Your task to perform on an android device: Is it going to rain this weekend? Image 0: 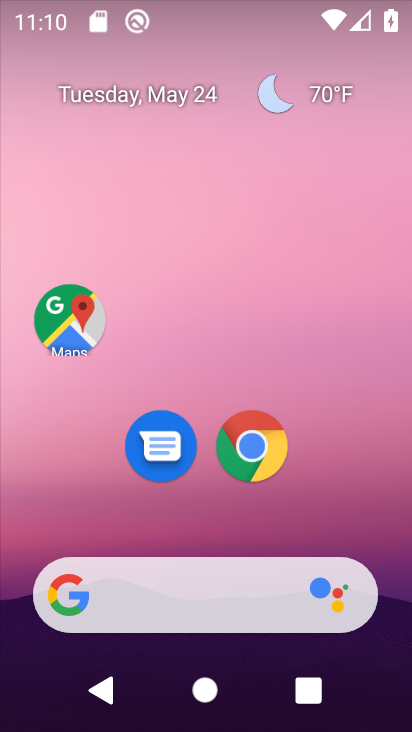
Step 0: drag from (214, 526) to (220, 169)
Your task to perform on an android device: Is it going to rain this weekend? Image 1: 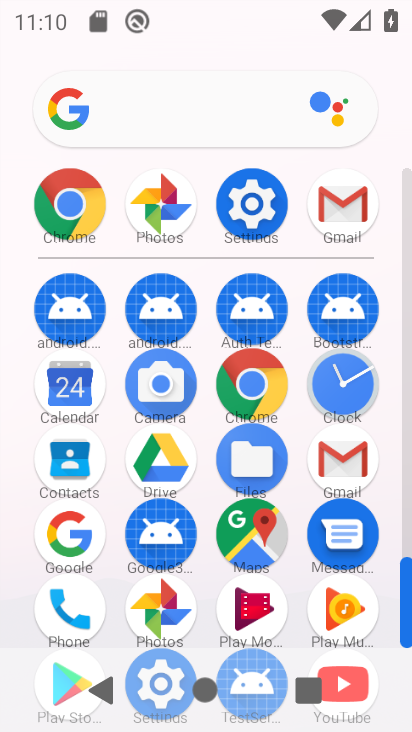
Step 1: drag from (199, 255) to (218, 143)
Your task to perform on an android device: Is it going to rain this weekend? Image 2: 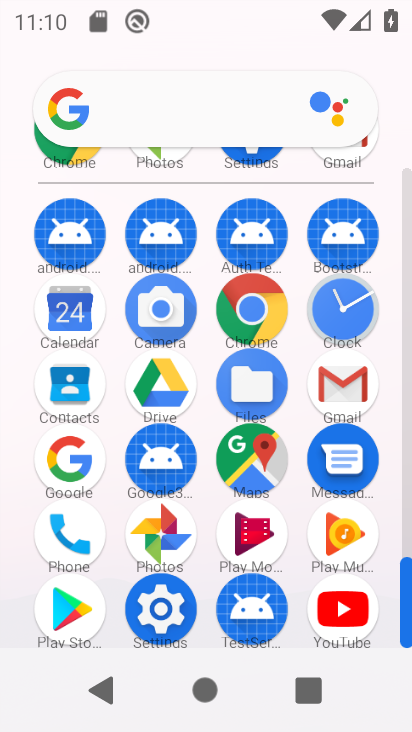
Step 2: click (82, 471)
Your task to perform on an android device: Is it going to rain this weekend? Image 3: 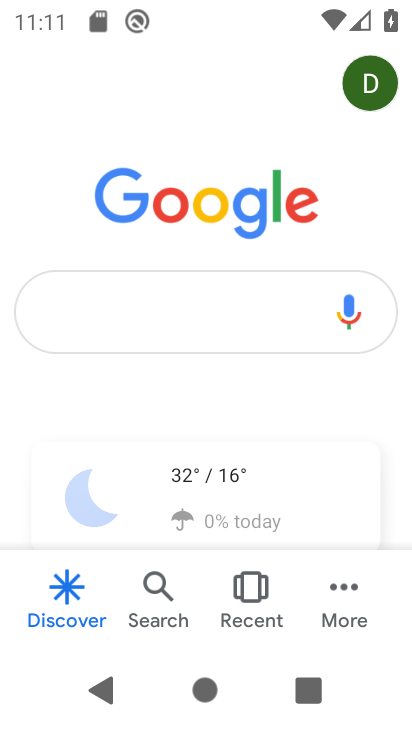
Step 3: click (182, 492)
Your task to perform on an android device: Is it going to rain this weekend? Image 4: 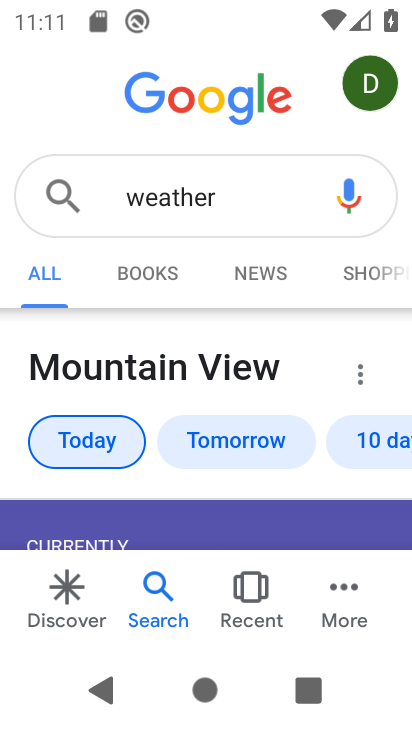
Step 4: click (391, 449)
Your task to perform on an android device: Is it going to rain this weekend? Image 5: 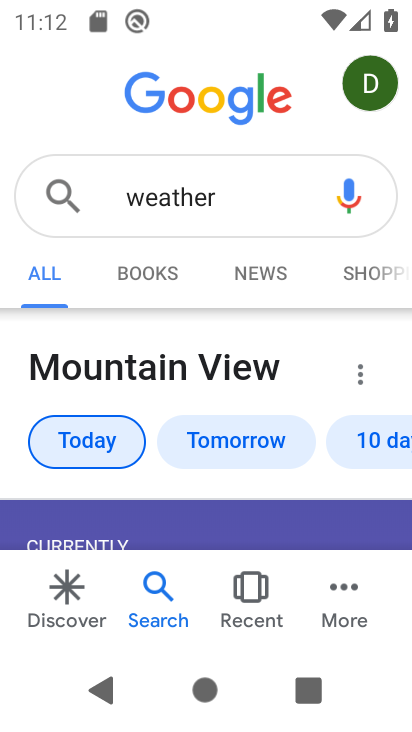
Step 5: click (359, 451)
Your task to perform on an android device: Is it going to rain this weekend? Image 6: 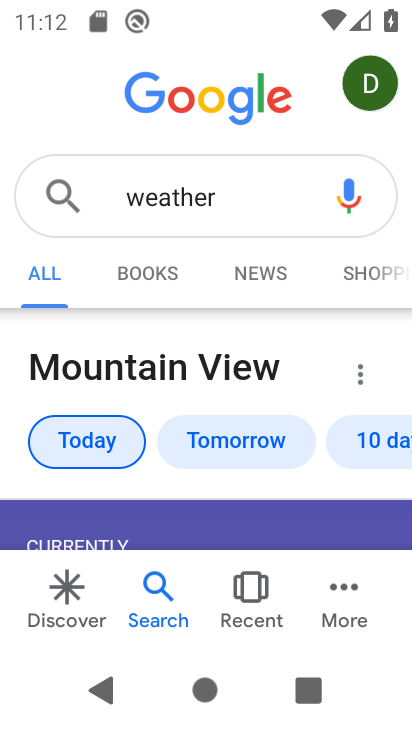
Step 6: task complete